Your task to perform on an android device: Go to ESPN.com Image 0: 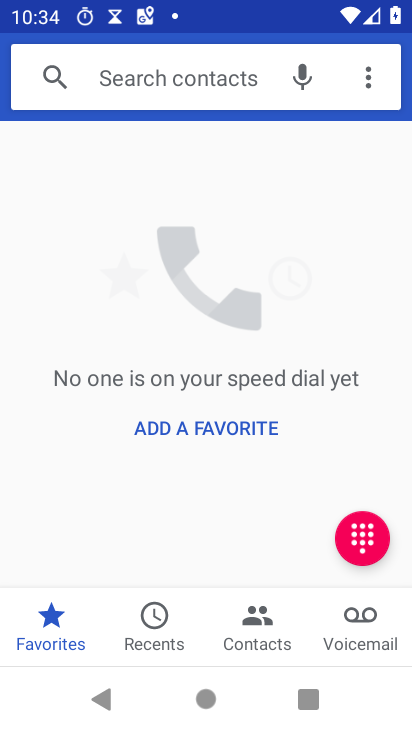
Step 0: press home button
Your task to perform on an android device: Go to ESPN.com Image 1: 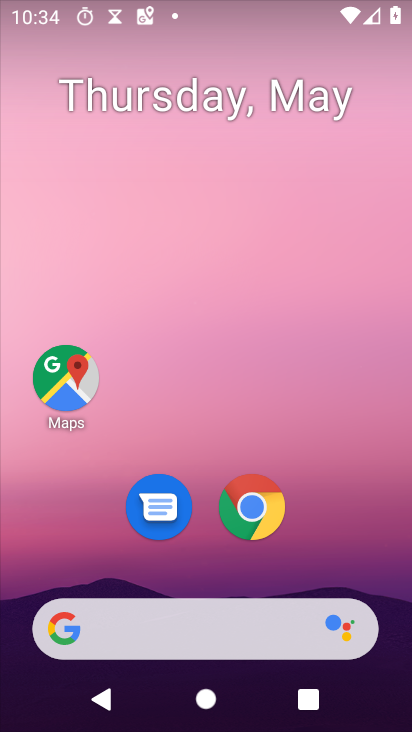
Step 1: click (236, 525)
Your task to perform on an android device: Go to ESPN.com Image 2: 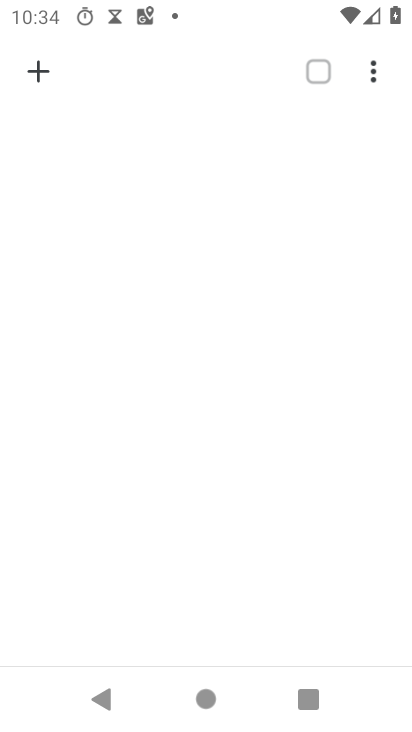
Step 2: click (30, 76)
Your task to perform on an android device: Go to ESPN.com Image 3: 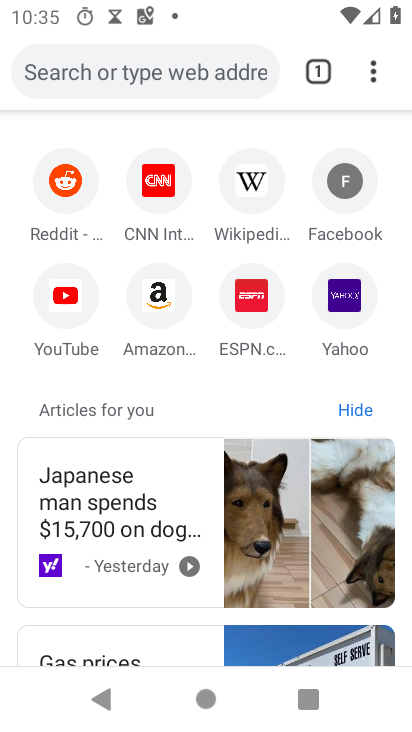
Step 3: click (241, 318)
Your task to perform on an android device: Go to ESPN.com Image 4: 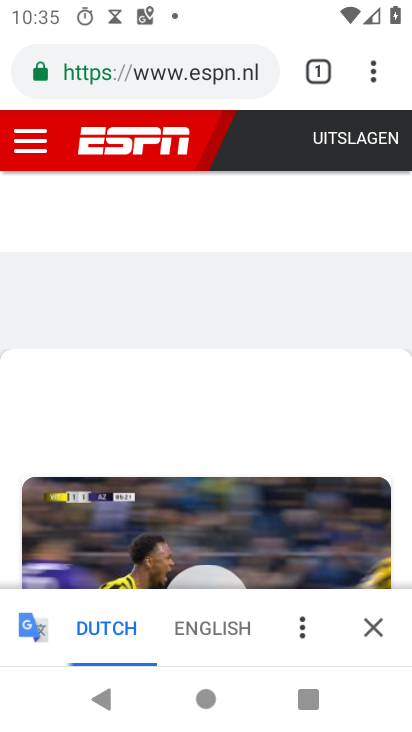
Step 4: task complete